Your task to perform on an android device: turn on javascript in the chrome app Image 0: 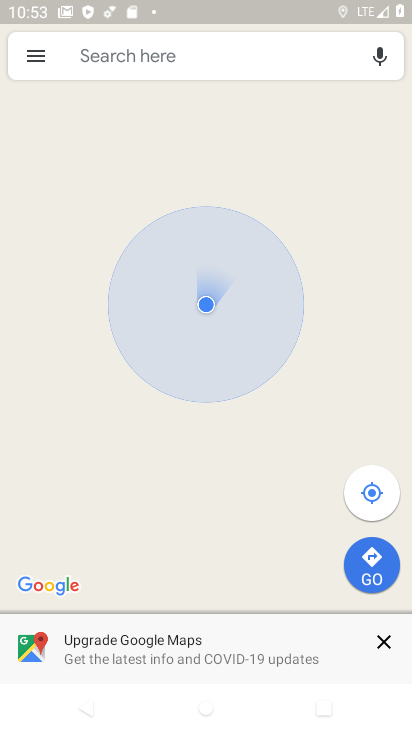
Step 0: press back button
Your task to perform on an android device: turn on javascript in the chrome app Image 1: 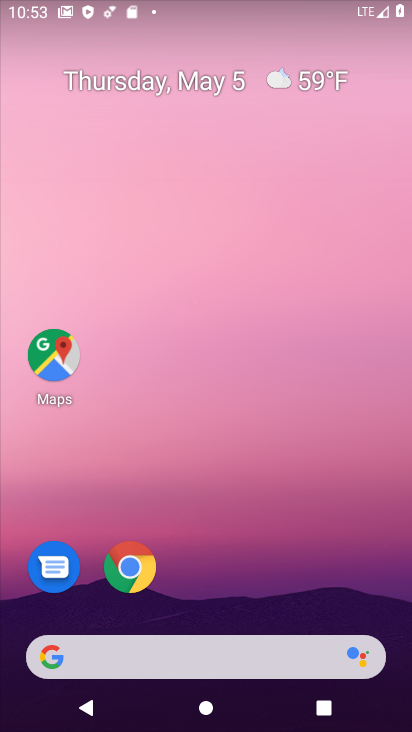
Step 1: click (129, 560)
Your task to perform on an android device: turn on javascript in the chrome app Image 2: 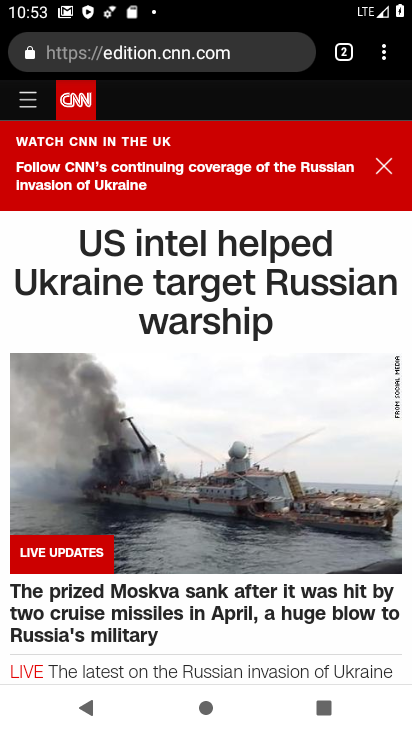
Step 2: drag from (384, 50) to (202, 575)
Your task to perform on an android device: turn on javascript in the chrome app Image 3: 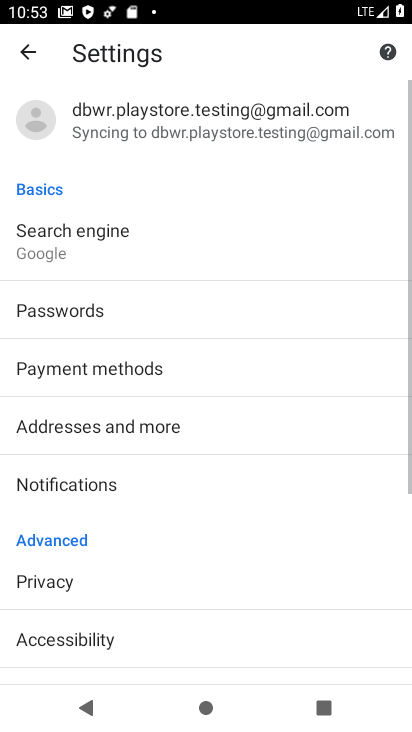
Step 3: drag from (103, 608) to (188, 136)
Your task to perform on an android device: turn on javascript in the chrome app Image 4: 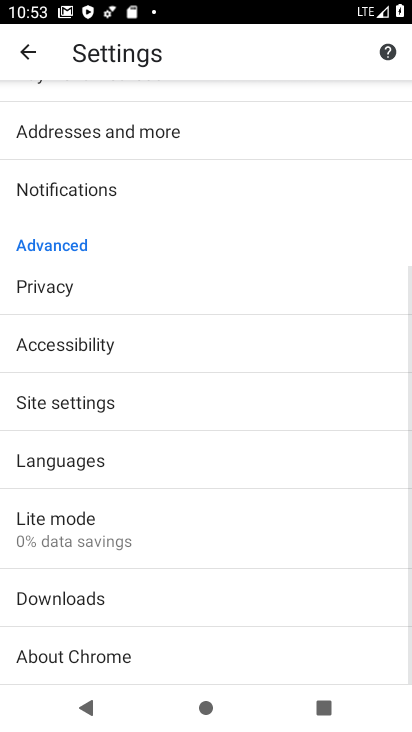
Step 4: click (84, 402)
Your task to perform on an android device: turn on javascript in the chrome app Image 5: 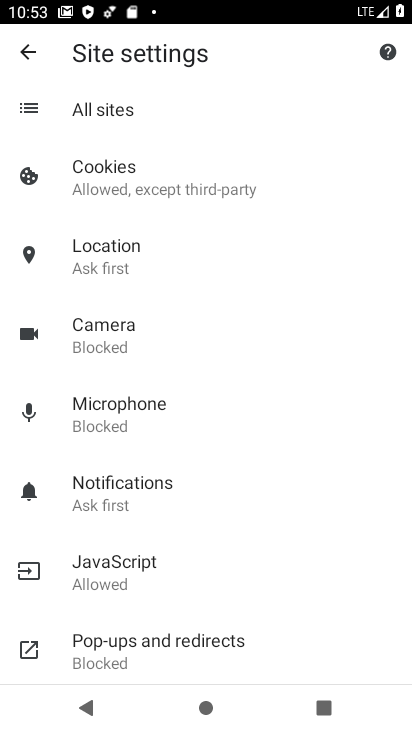
Step 5: click (115, 567)
Your task to perform on an android device: turn on javascript in the chrome app Image 6: 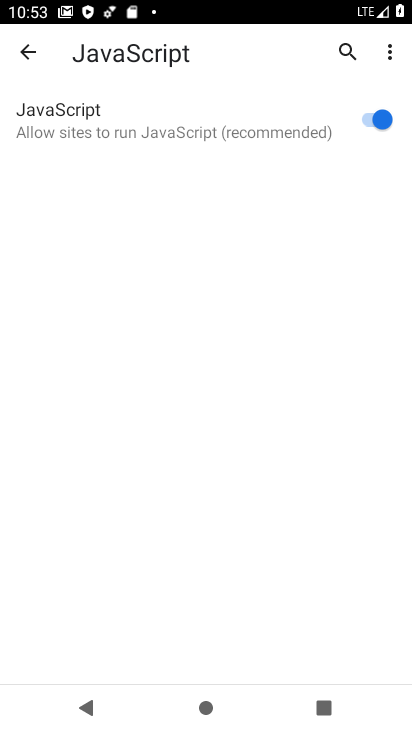
Step 6: task complete